Your task to perform on an android device: Go to display settings Image 0: 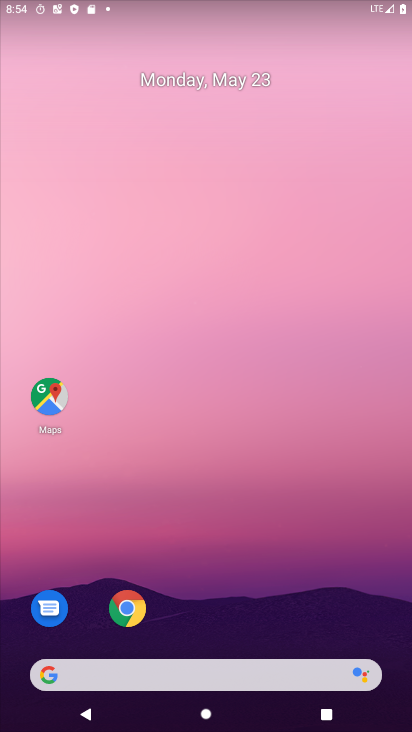
Step 0: drag from (219, 668) to (296, 332)
Your task to perform on an android device: Go to display settings Image 1: 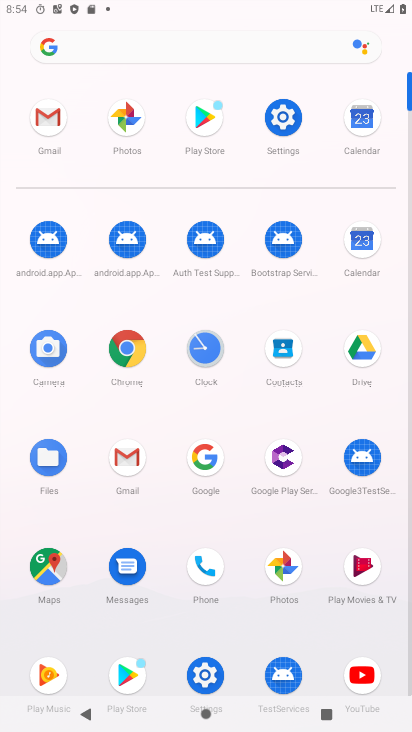
Step 1: click (289, 112)
Your task to perform on an android device: Go to display settings Image 2: 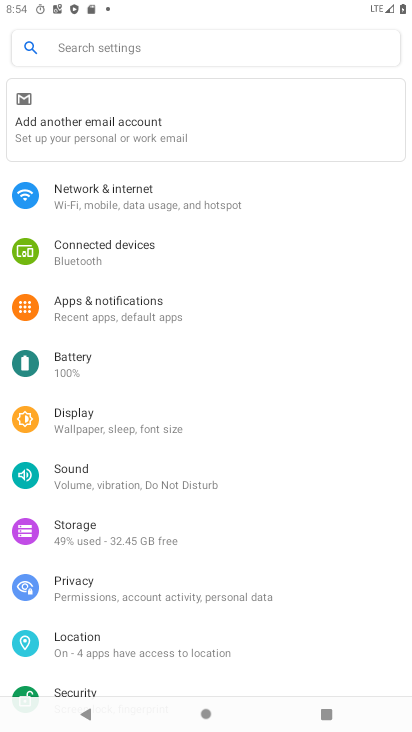
Step 2: click (89, 422)
Your task to perform on an android device: Go to display settings Image 3: 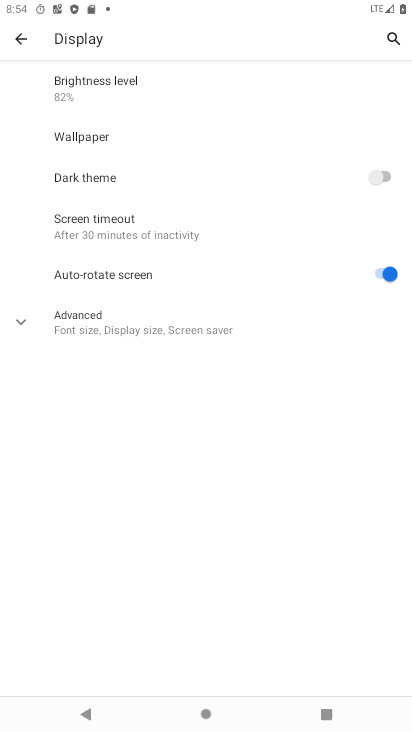
Step 3: click (142, 325)
Your task to perform on an android device: Go to display settings Image 4: 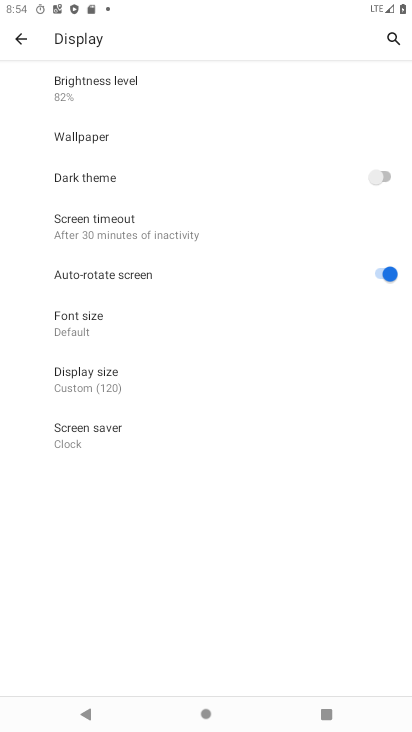
Step 4: task complete